Your task to perform on an android device: Go to Google Image 0: 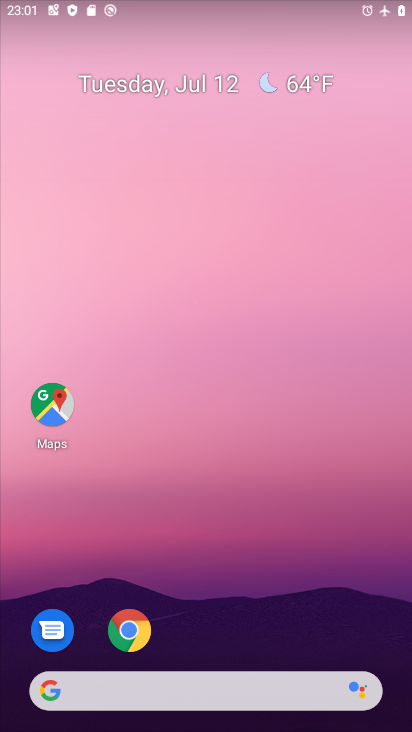
Step 0: drag from (225, 670) to (236, 155)
Your task to perform on an android device: Go to Google Image 1: 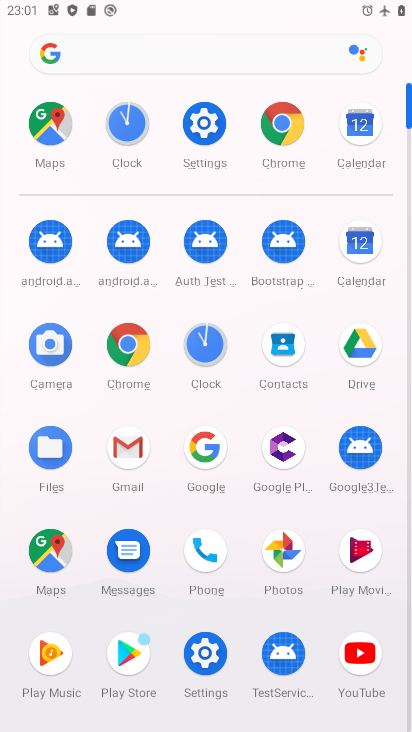
Step 1: click (209, 462)
Your task to perform on an android device: Go to Google Image 2: 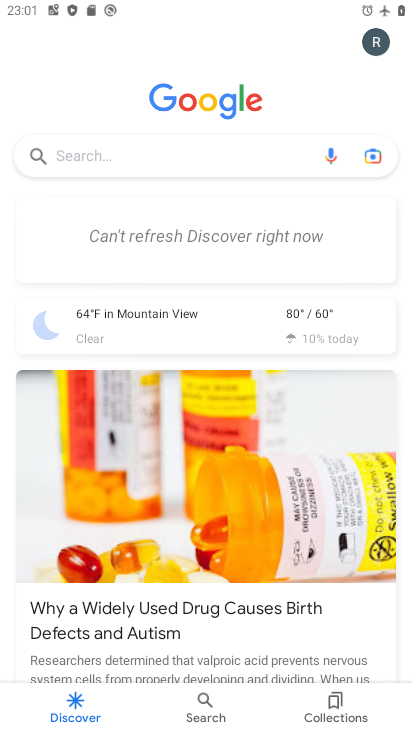
Step 2: task complete